Your task to perform on an android device: turn off smart reply in the gmail app Image 0: 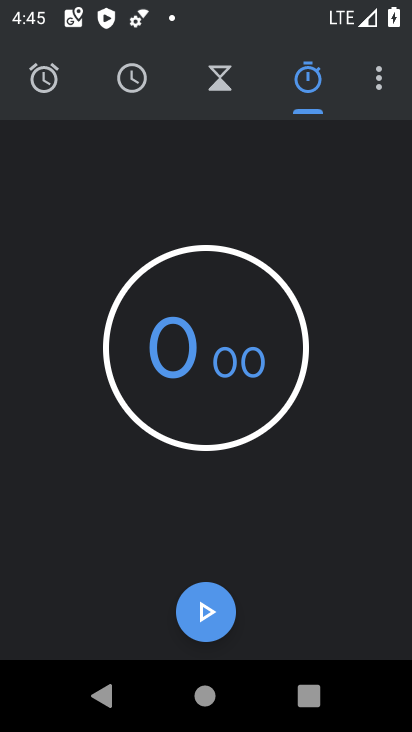
Step 0: press home button
Your task to perform on an android device: turn off smart reply in the gmail app Image 1: 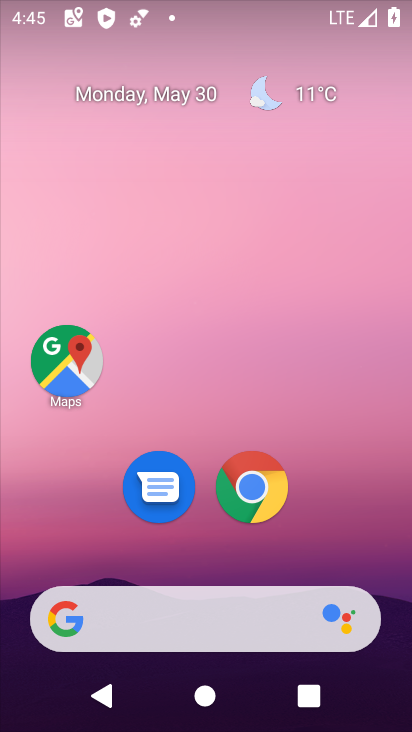
Step 1: drag from (396, 621) to (345, 152)
Your task to perform on an android device: turn off smart reply in the gmail app Image 2: 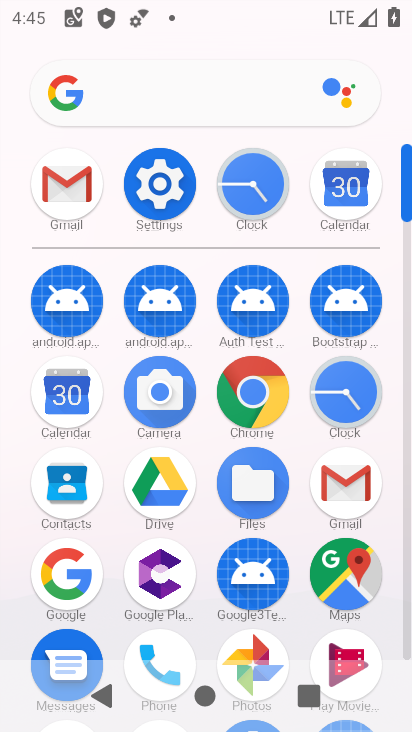
Step 2: click (407, 629)
Your task to perform on an android device: turn off smart reply in the gmail app Image 3: 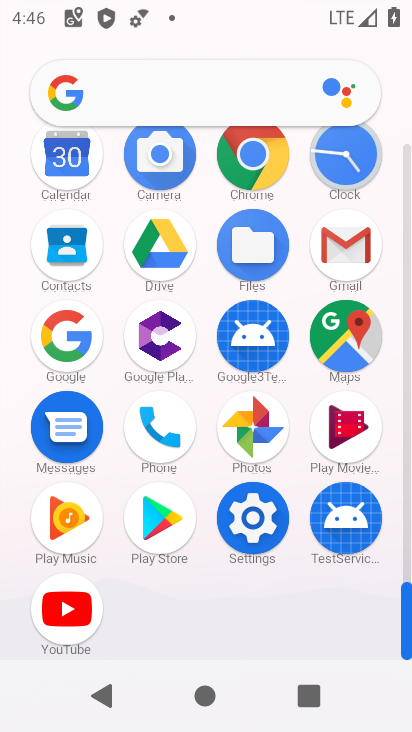
Step 3: click (346, 246)
Your task to perform on an android device: turn off smart reply in the gmail app Image 4: 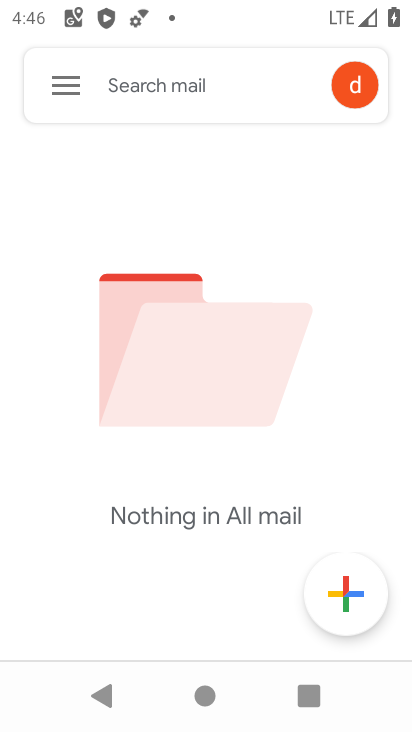
Step 4: click (66, 90)
Your task to perform on an android device: turn off smart reply in the gmail app Image 5: 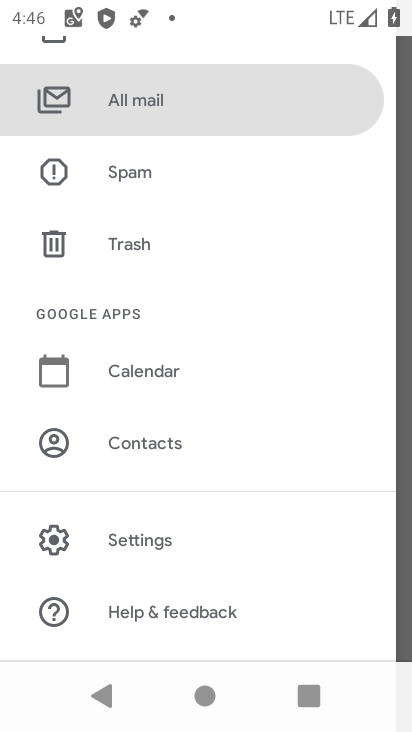
Step 5: click (147, 539)
Your task to perform on an android device: turn off smart reply in the gmail app Image 6: 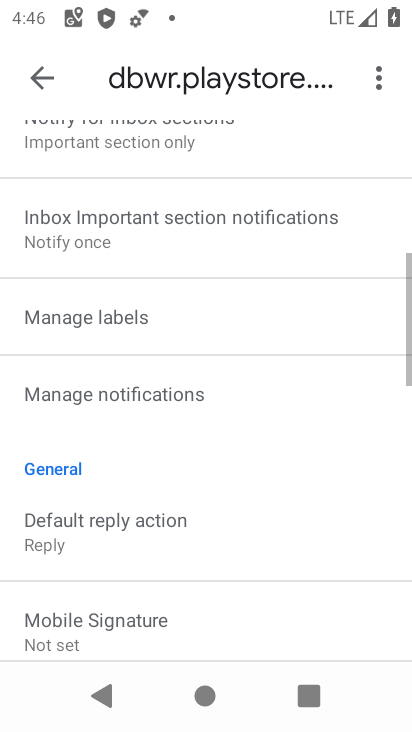
Step 6: drag from (253, 599) to (253, 154)
Your task to perform on an android device: turn off smart reply in the gmail app Image 7: 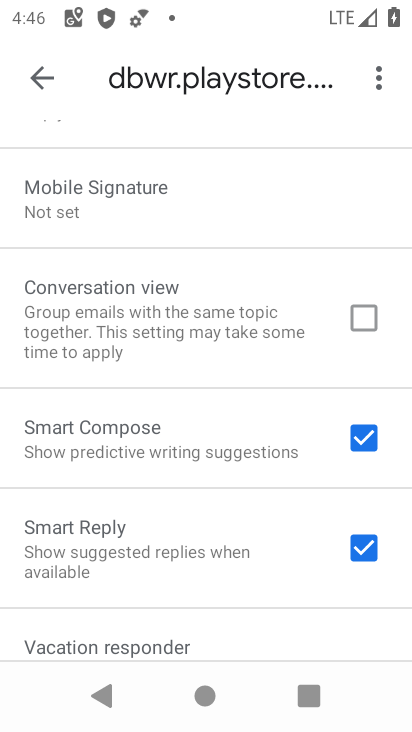
Step 7: click (359, 544)
Your task to perform on an android device: turn off smart reply in the gmail app Image 8: 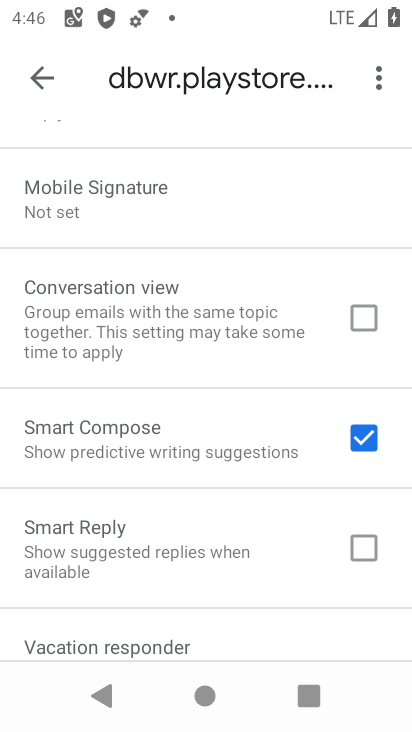
Step 8: task complete